Your task to perform on an android device: Open Google Chrome and click the shortcut for Amazon.com Image 0: 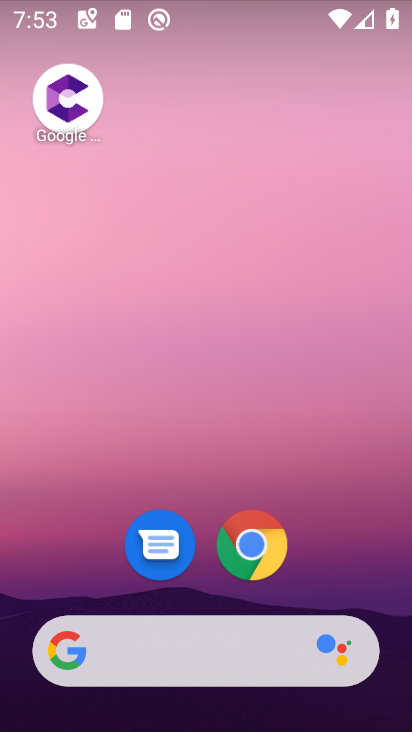
Step 0: drag from (383, 575) to (395, 116)
Your task to perform on an android device: Open Google Chrome and click the shortcut for Amazon.com Image 1: 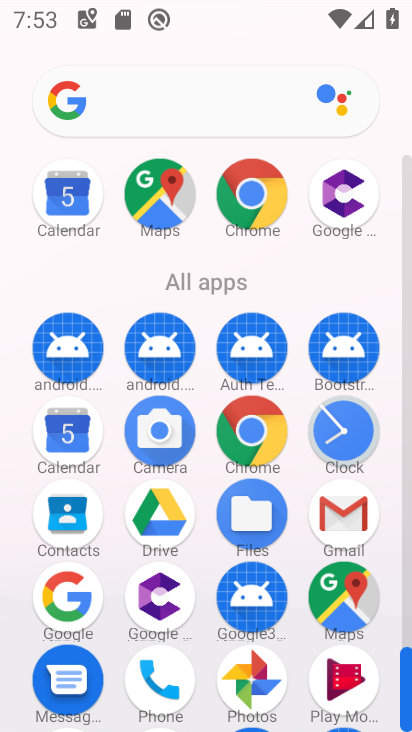
Step 1: click (258, 209)
Your task to perform on an android device: Open Google Chrome and click the shortcut for Amazon.com Image 2: 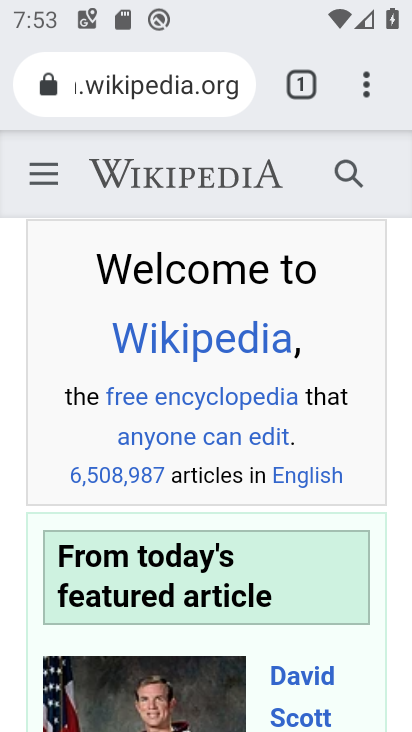
Step 2: drag from (313, 84) to (267, 364)
Your task to perform on an android device: Open Google Chrome and click the shortcut for Amazon.com Image 3: 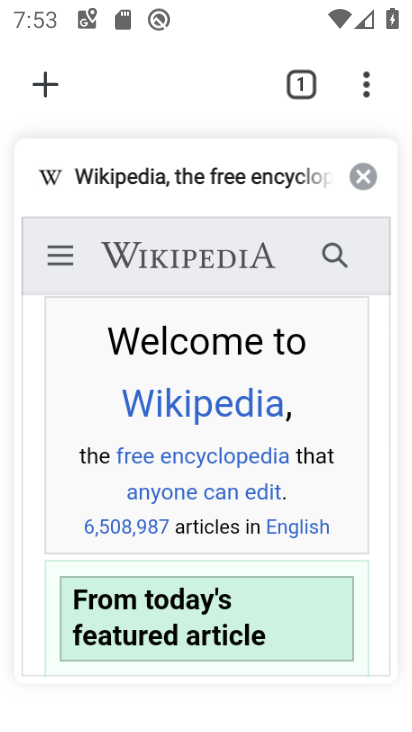
Step 3: click (51, 95)
Your task to perform on an android device: Open Google Chrome and click the shortcut for Amazon.com Image 4: 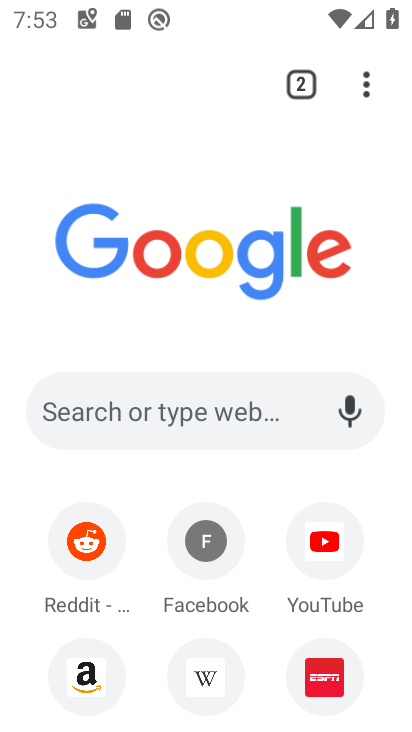
Step 4: click (100, 668)
Your task to perform on an android device: Open Google Chrome and click the shortcut for Amazon.com Image 5: 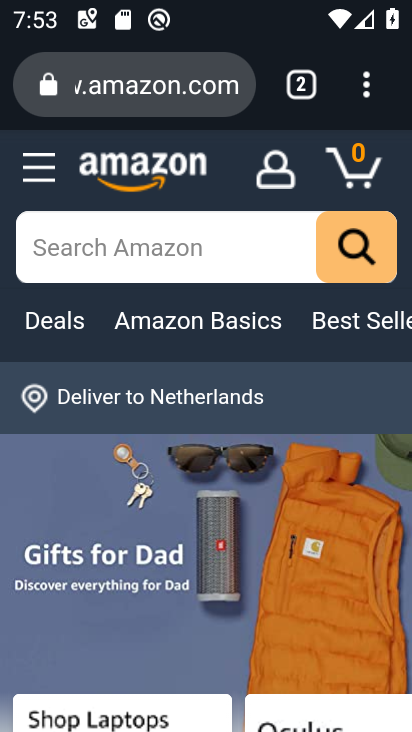
Step 5: task complete